Your task to perform on an android device: Open Chrome and go to settings Image 0: 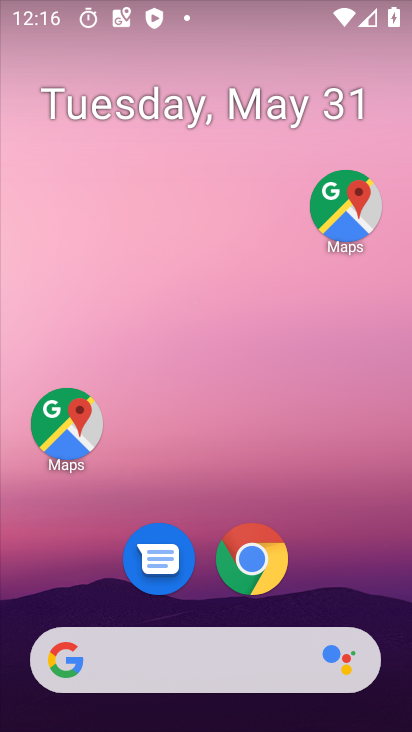
Step 0: click (259, 564)
Your task to perform on an android device: Open Chrome and go to settings Image 1: 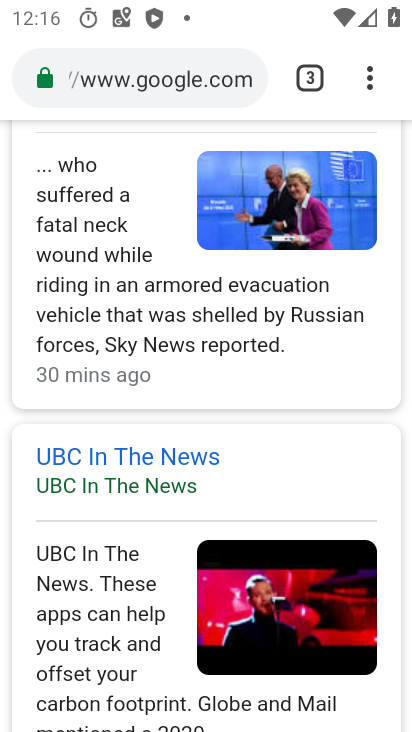
Step 1: click (368, 76)
Your task to perform on an android device: Open Chrome and go to settings Image 2: 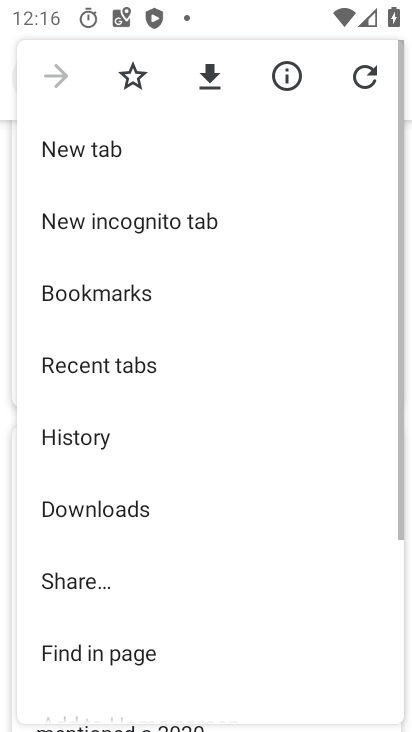
Step 2: drag from (122, 575) to (246, 220)
Your task to perform on an android device: Open Chrome and go to settings Image 3: 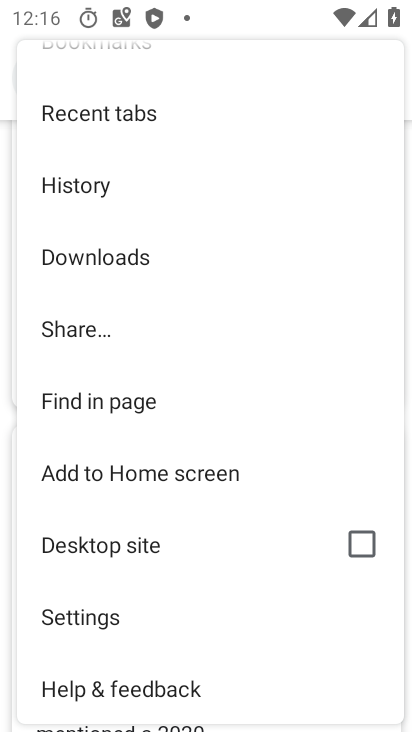
Step 3: click (125, 622)
Your task to perform on an android device: Open Chrome and go to settings Image 4: 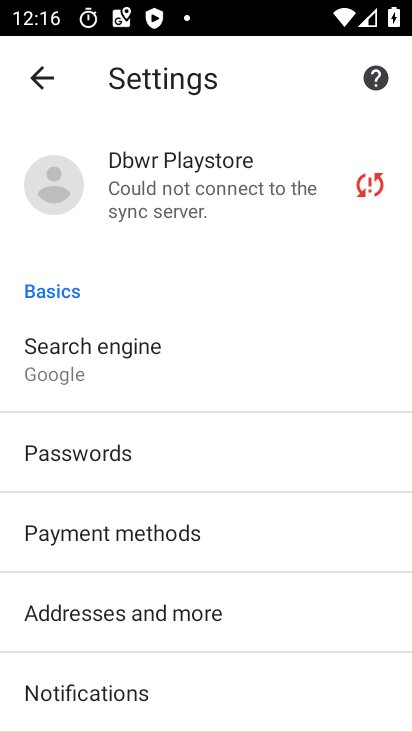
Step 4: task complete